Your task to perform on an android device: Go to internet settings Image 0: 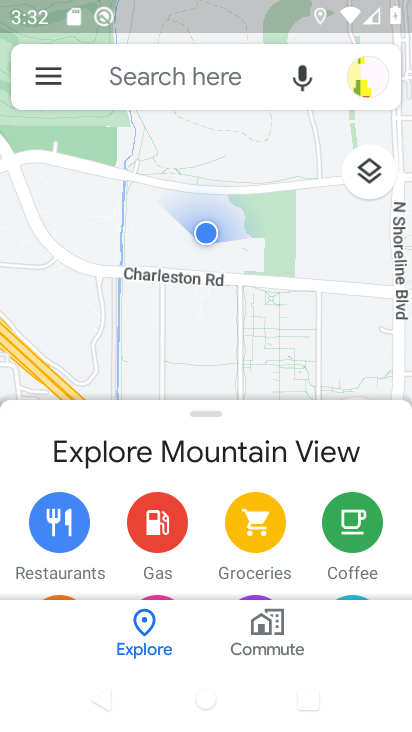
Step 0: press home button
Your task to perform on an android device: Go to internet settings Image 1: 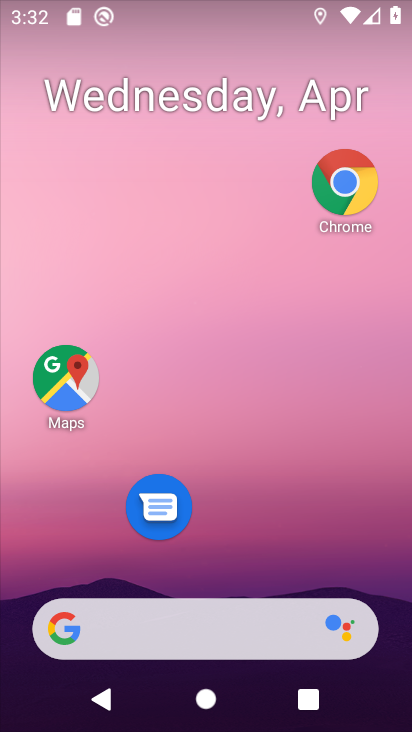
Step 1: drag from (217, 567) to (283, 35)
Your task to perform on an android device: Go to internet settings Image 2: 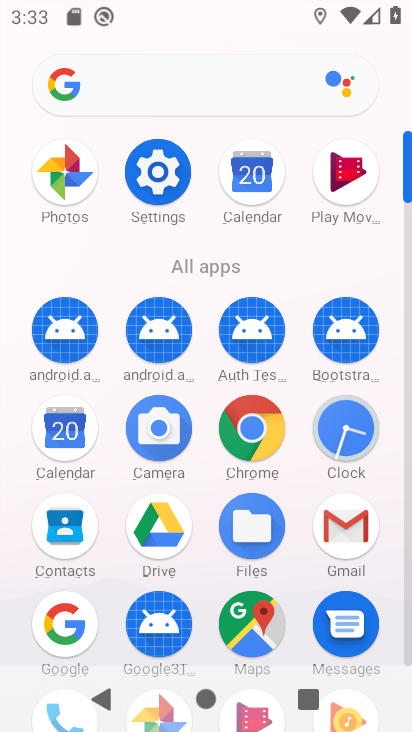
Step 2: click (164, 190)
Your task to perform on an android device: Go to internet settings Image 3: 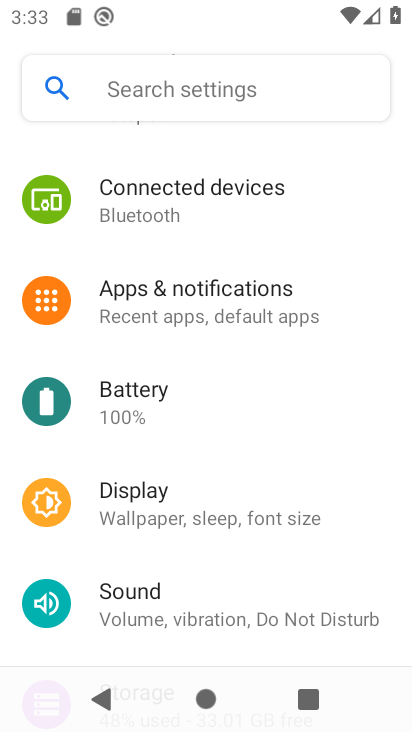
Step 3: drag from (199, 221) to (201, 457)
Your task to perform on an android device: Go to internet settings Image 4: 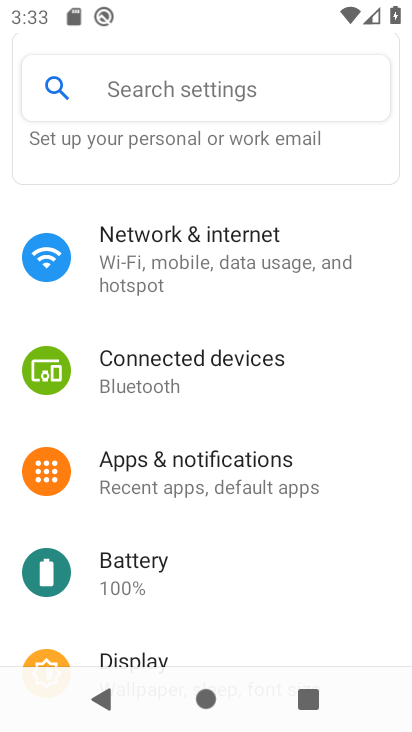
Step 4: click (177, 276)
Your task to perform on an android device: Go to internet settings Image 5: 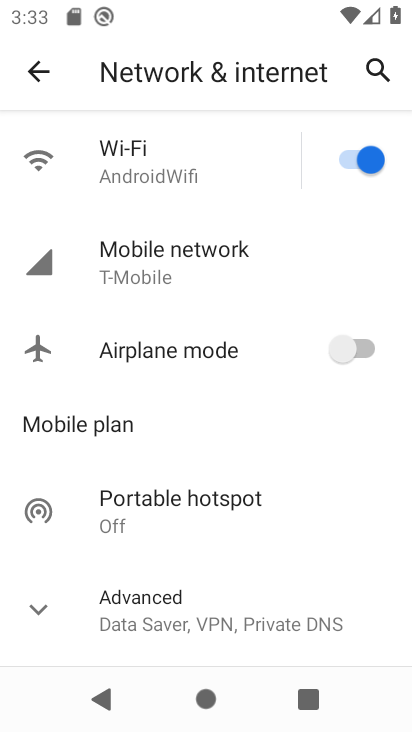
Step 5: task complete